Your task to perform on an android device: View the shopping cart on ebay. Image 0: 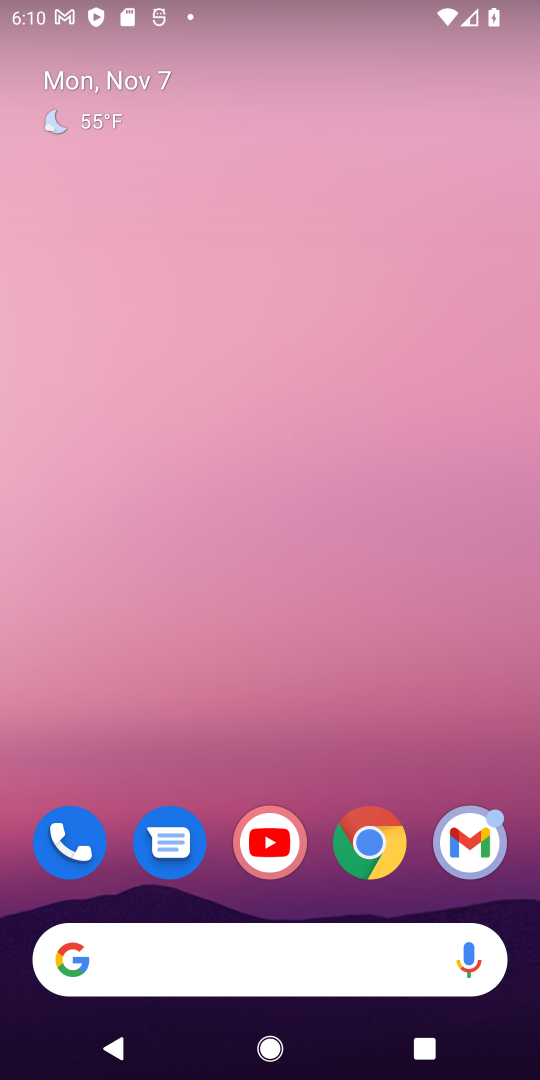
Step 0: click (371, 855)
Your task to perform on an android device: View the shopping cart on ebay. Image 1: 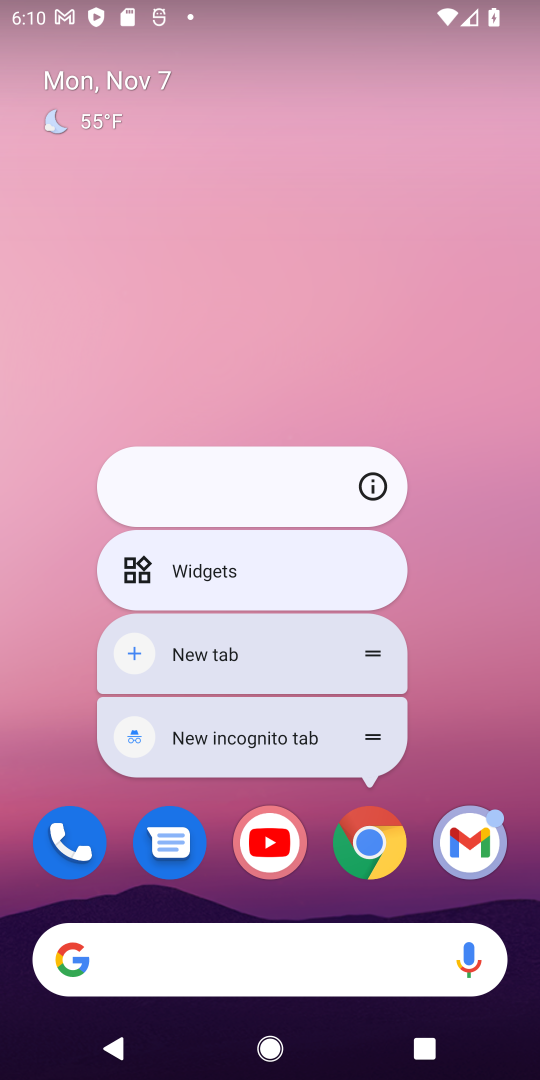
Step 1: click (371, 851)
Your task to perform on an android device: View the shopping cart on ebay. Image 2: 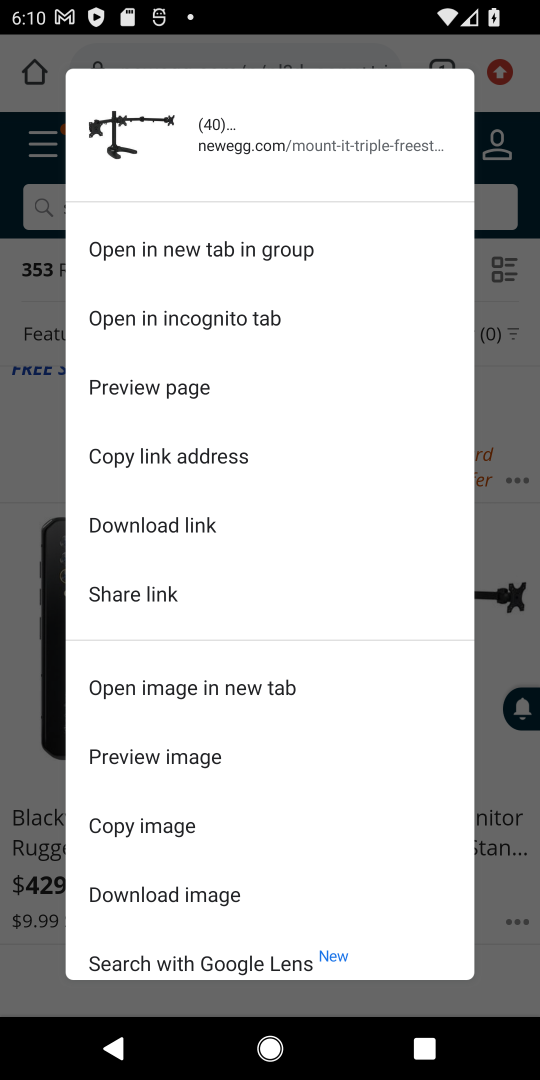
Step 2: click (497, 539)
Your task to perform on an android device: View the shopping cart on ebay. Image 3: 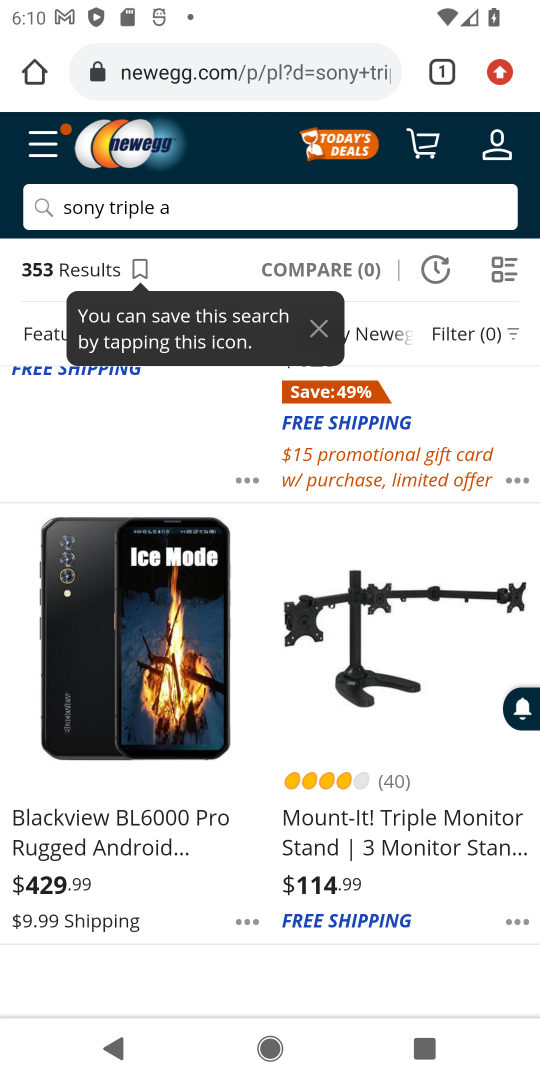
Step 3: click (280, 62)
Your task to perform on an android device: View the shopping cart on ebay. Image 4: 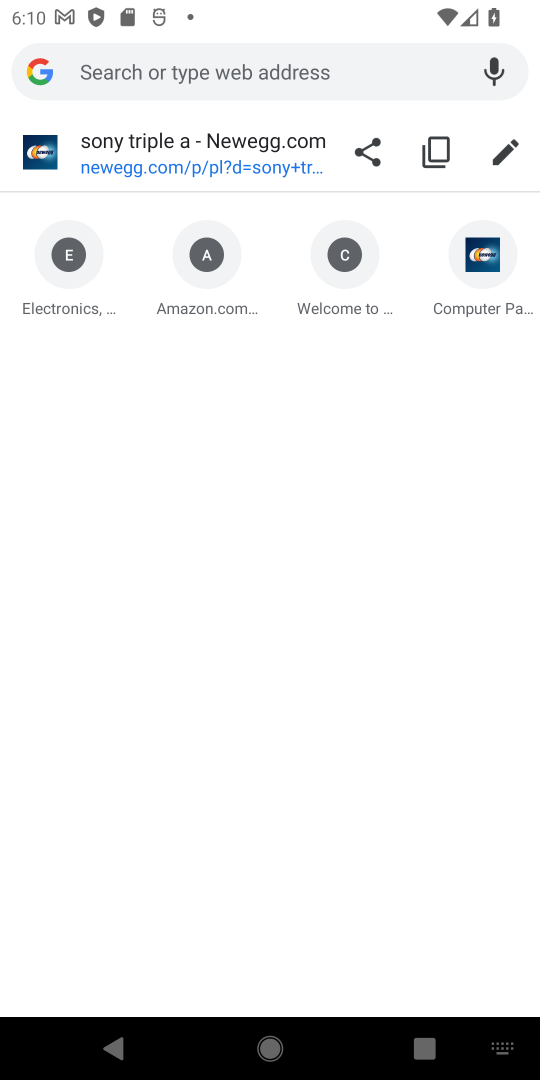
Step 4: click (70, 307)
Your task to perform on an android device: View the shopping cart on ebay. Image 5: 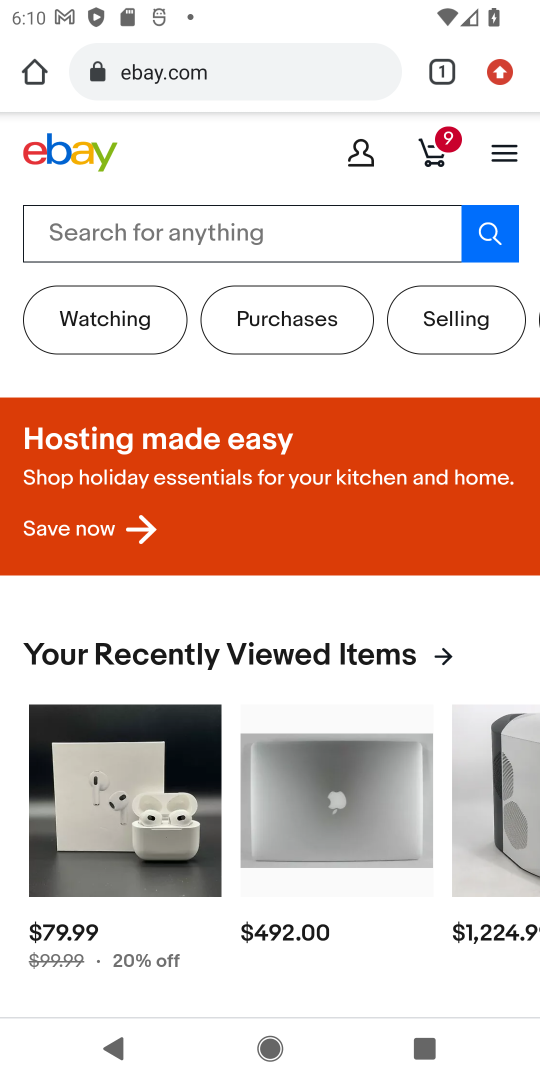
Step 5: click (446, 141)
Your task to perform on an android device: View the shopping cart on ebay. Image 6: 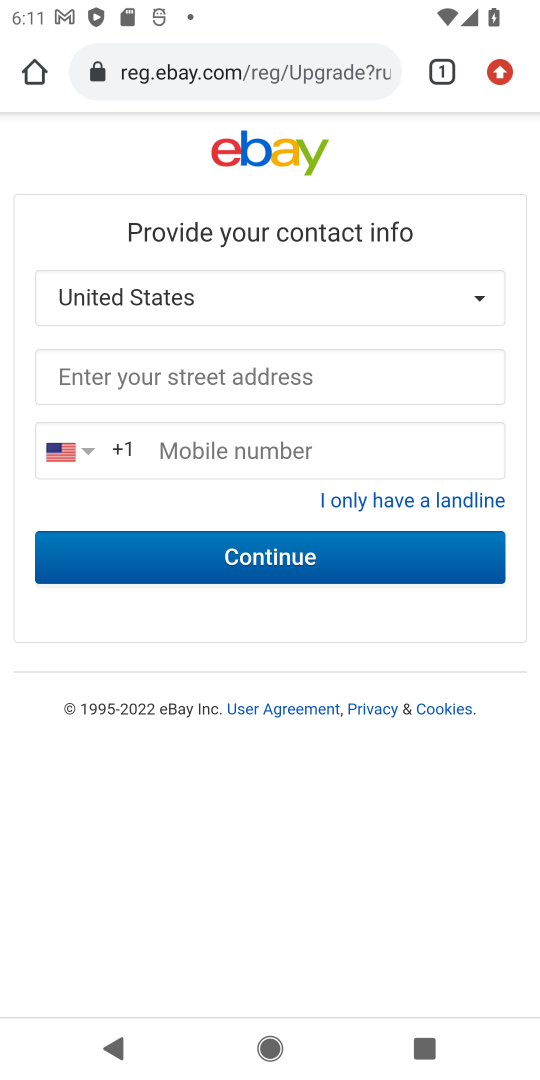
Step 6: click (336, 545)
Your task to perform on an android device: View the shopping cart on ebay. Image 7: 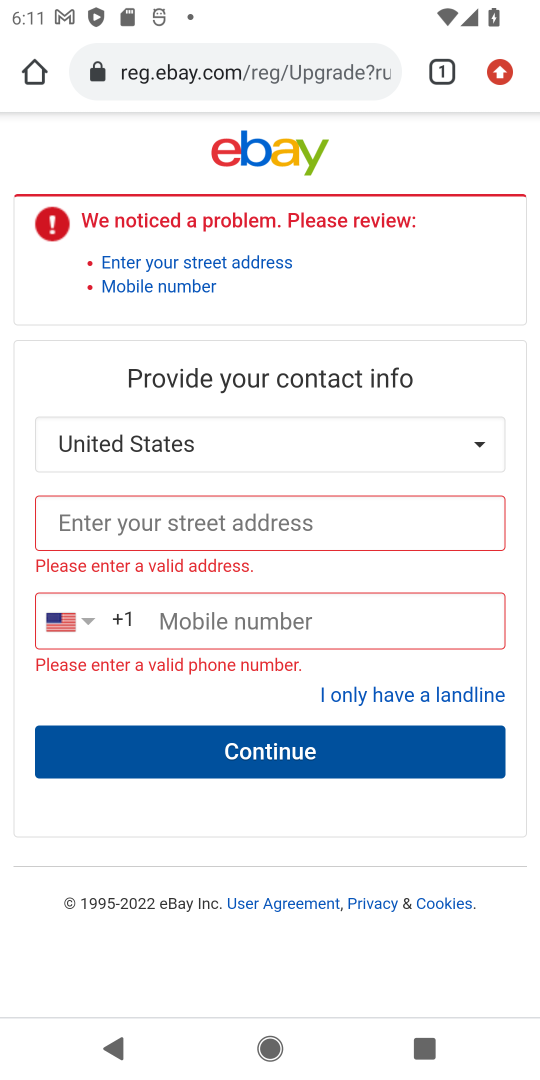
Step 7: task complete